Your task to perform on an android device: check google app version Image 0: 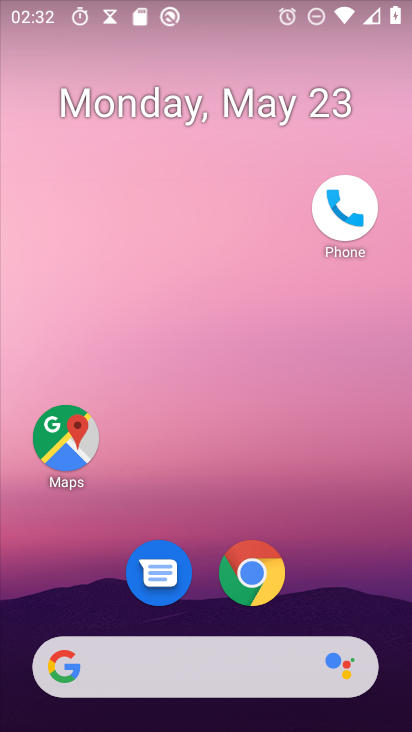
Step 0: drag from (161, 637) to (284, 141)
Your task to perform on an android device: check google app version Image 1: 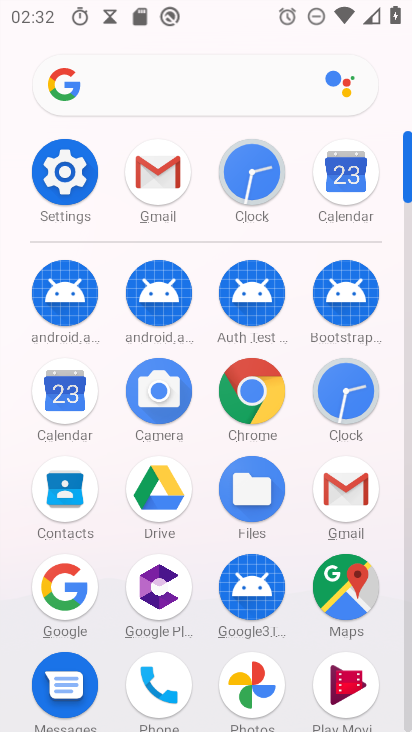
Step 1: click (75, 579)
Your task to perform on an android device: check google app version Image 2: 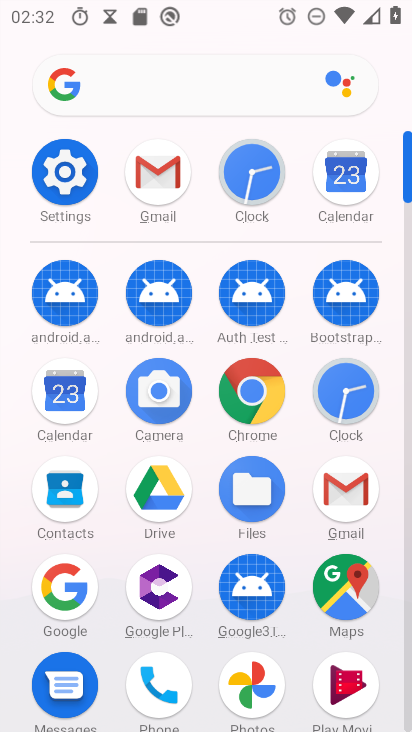
Step 2: click (245, 347)
Your task to perform on an android device: check google app version Image 3: 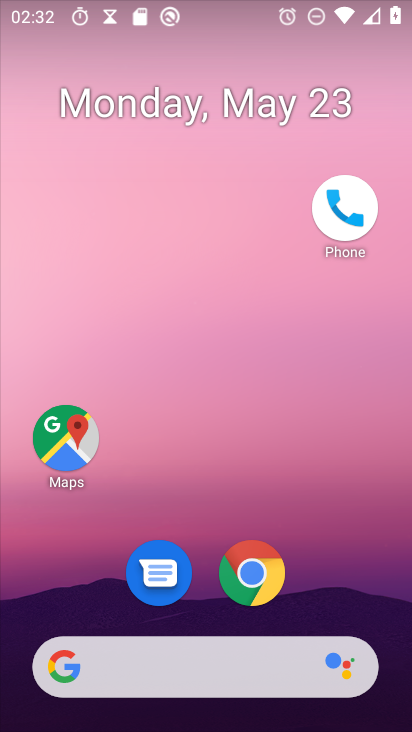
Step 3: drag from (156, 663) to (275, 157)
Your task to perform on an android device: check google app version Image 4: 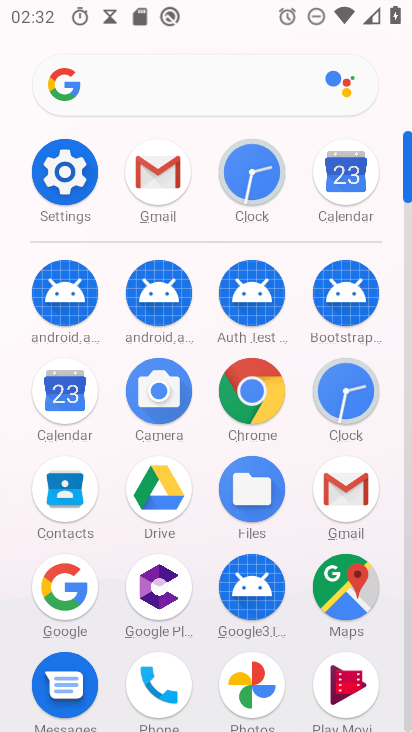
Step 4: click (70, 598)
Your task to perform on an android device: check google app version Image 5: 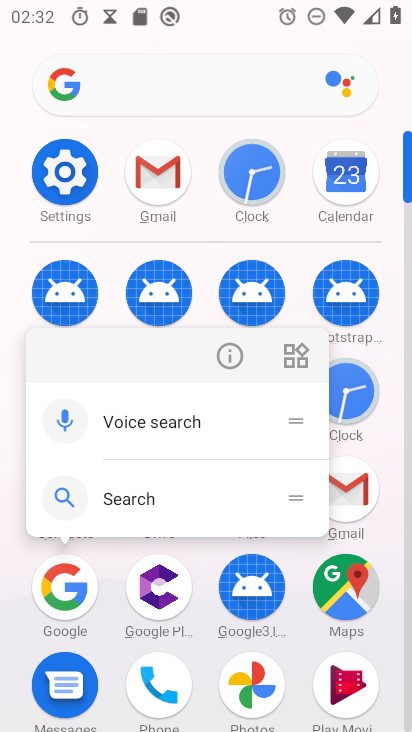
Step 5: click (230, 360)
Your task to perform on an android device: check google app version Image 6: 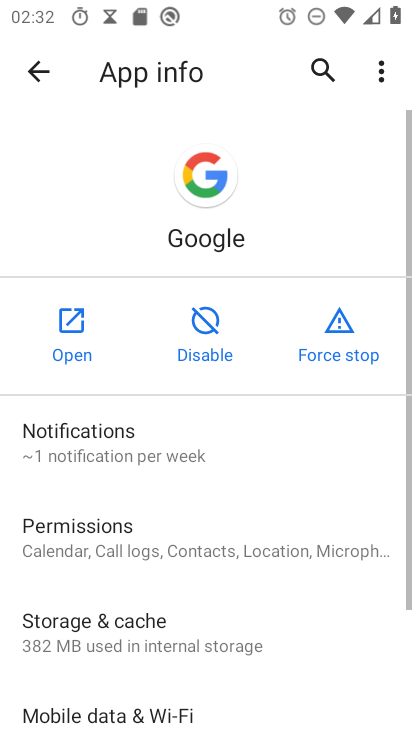
Step 6: drag from (178, 704) to (348, 200)
Your task to perform on an android device: check google app version Image 7: 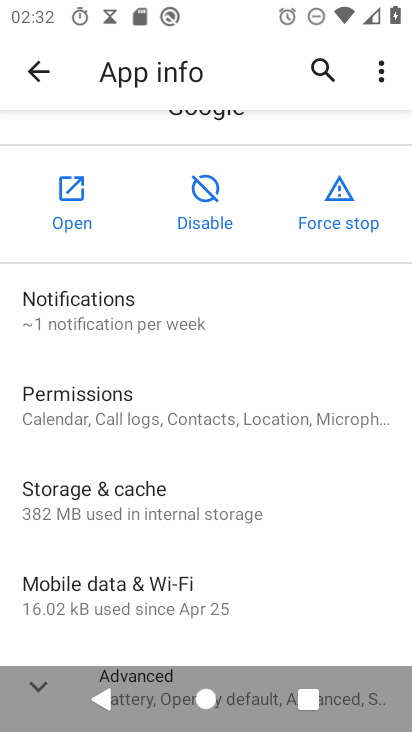
Step 7: drag from (175, 635) to (302, 255)
Your task to perform on an android device: check google app version Image 8: 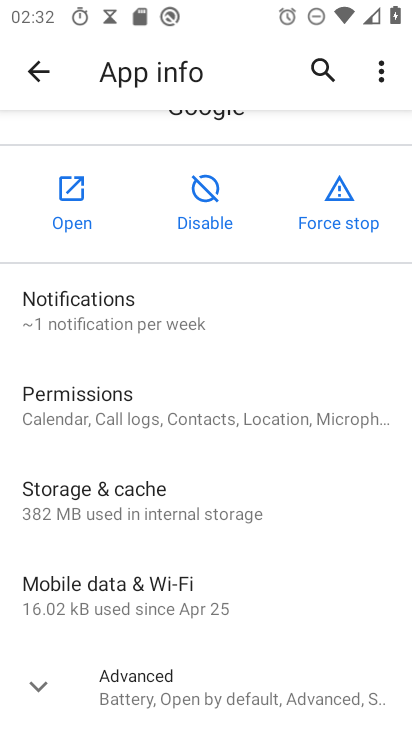
Step 8: click (129, 680)
Your task to perform on an android device: check google app version Image 9: 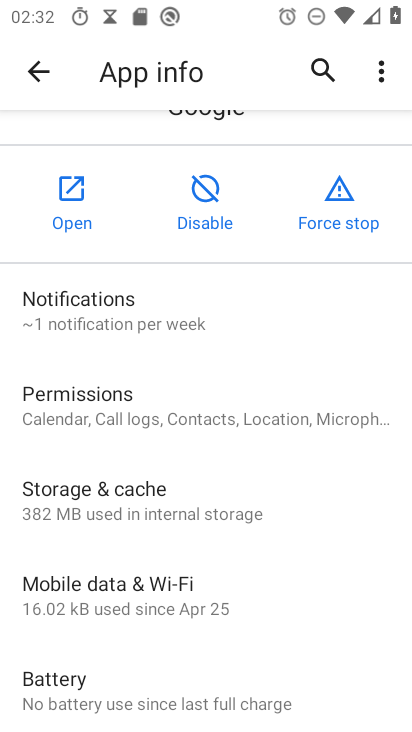
Step 9: task complete